Your task to perform on an android device: Open the stopwatch Image 0: 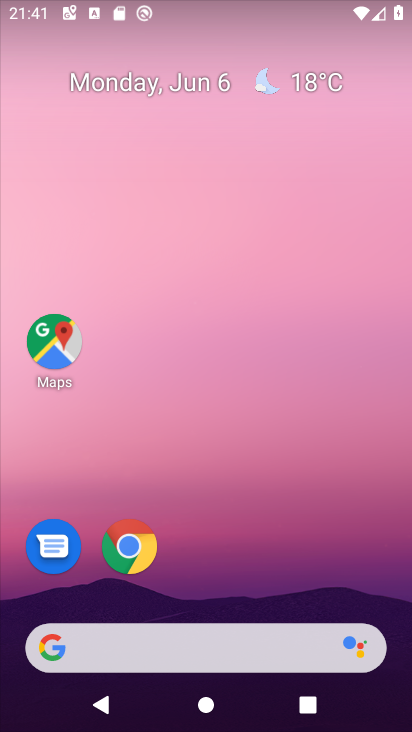
Step 0: drag from (318, 597) to (281, 114)
Your task to perform on an android device: Open the stopwatch Image 1: 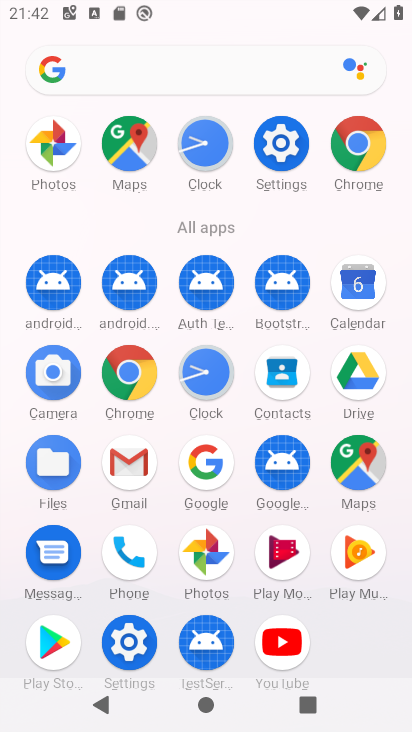
Step 1: click (206, 370)
Your task to perform on an android device: Open the stopwatch Image 2: 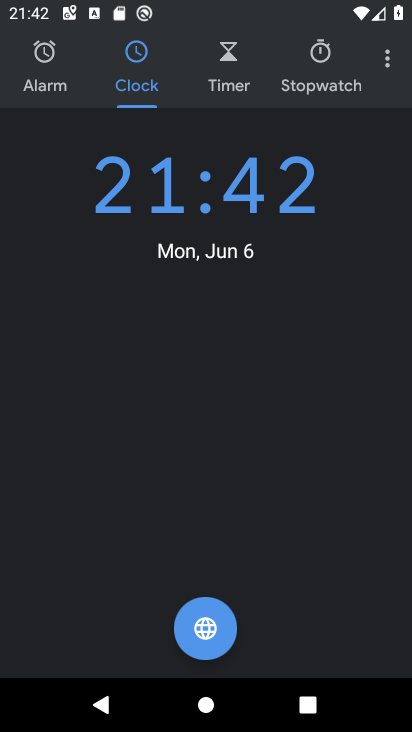
Step 2: click (320, 52)
Your task to perform on an android device: Open the stopwatch Image 3: 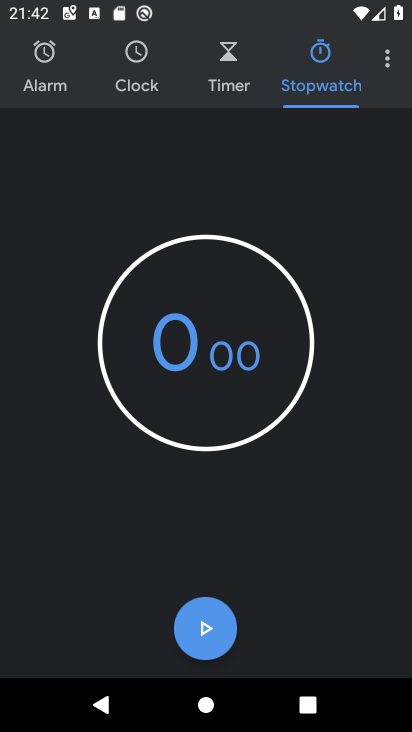
Step 3: task complete